Your task to perform on an android device: Open my contact list Image 0: 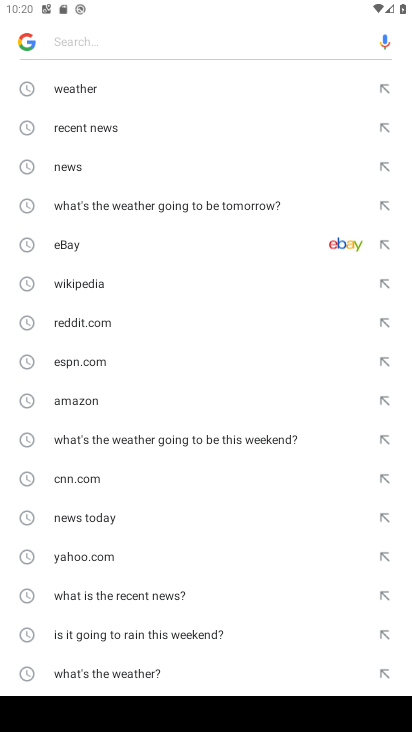
Step 0: press back button
Your task to perform on an android device: Open my contact list Image 1: 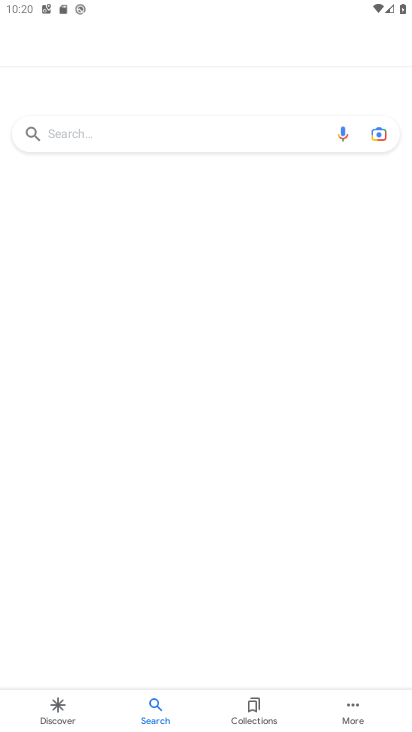
Step 1: press back button
Your task to perform on an android device: Open my contact list Image 2: 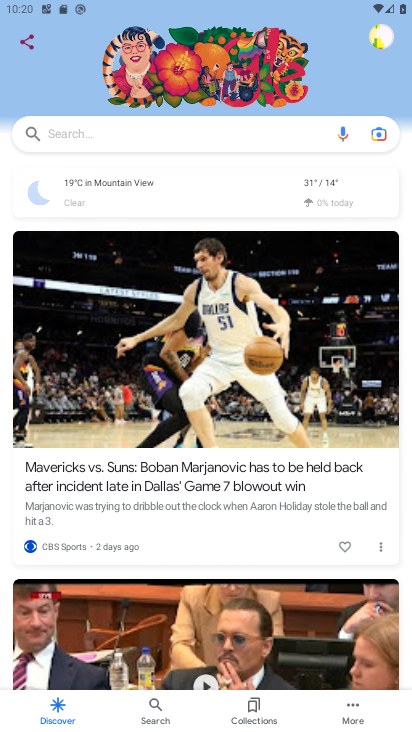
Step 2: press back button
Your task to perform on an android device: Open my contact list Image 3: 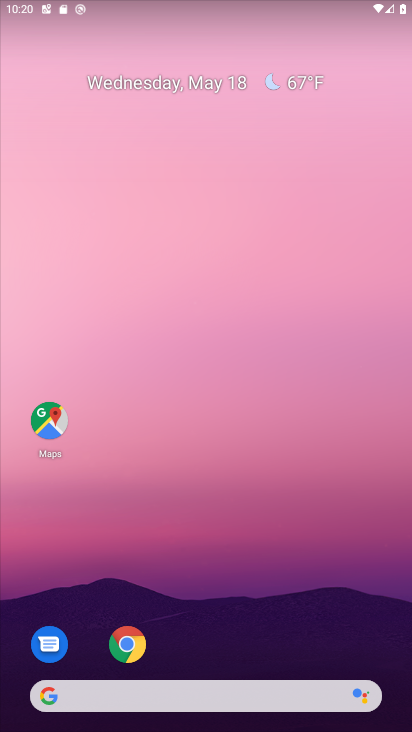
Step 3: drag from (206, 597) to (175, 84)
Your task to perform on an android device: Open my contact list Image 4: 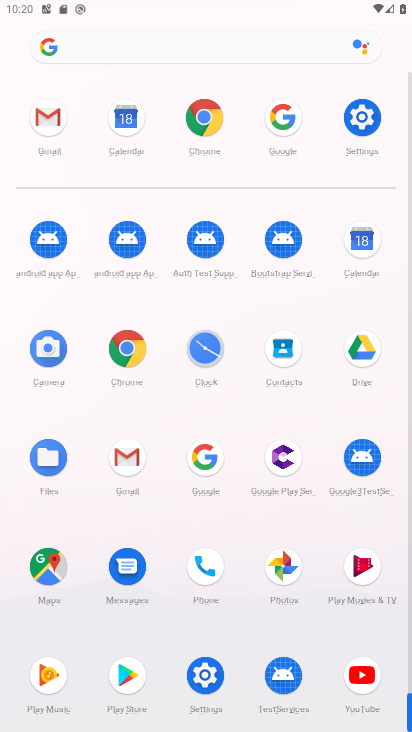
Step 4: click (284, 350)
Your task to perform on an android device: Open my contact list Image 5: 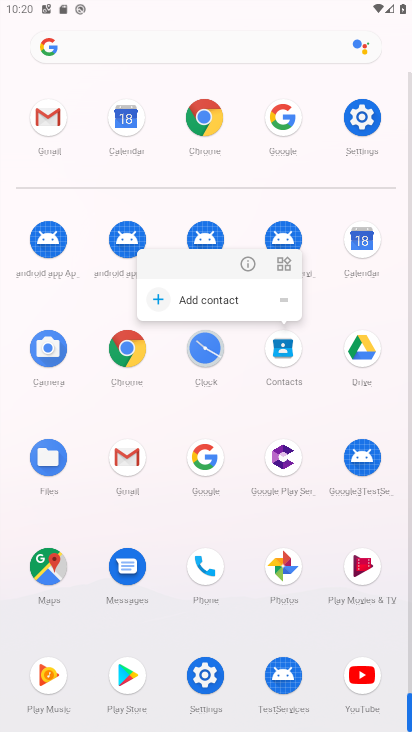
Step 5: click (284, 350)
Your task to perform on an android device: Open my contact list Image 6: 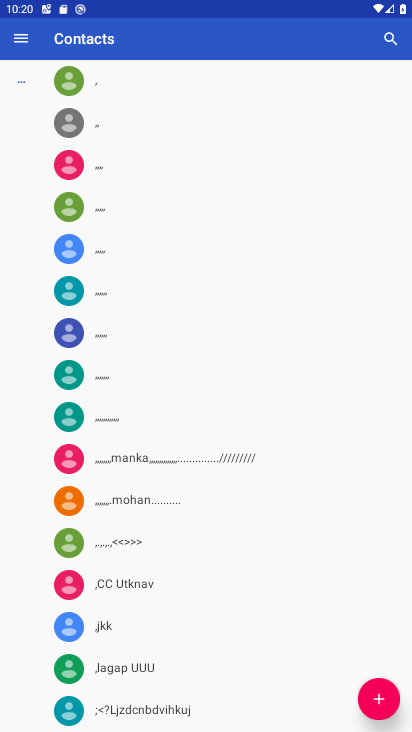
Step 6: task complete